Your task to perform on an android device: toggle sleep mode Image 0: 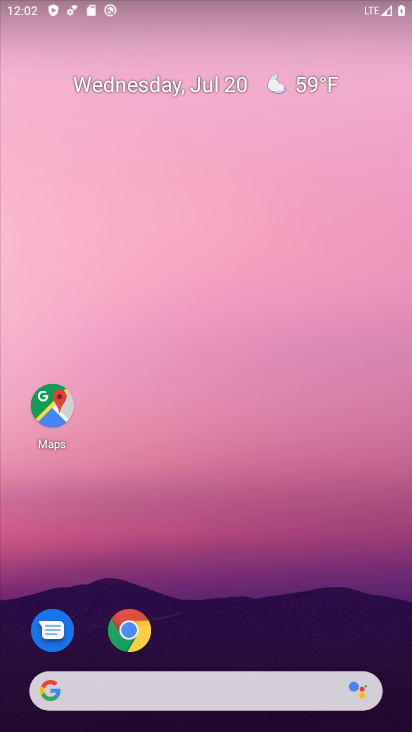
Step 0: drag from (254, 613) to (131, 267)
Your task to perform on an android device: toggle sleep mode Image 1: 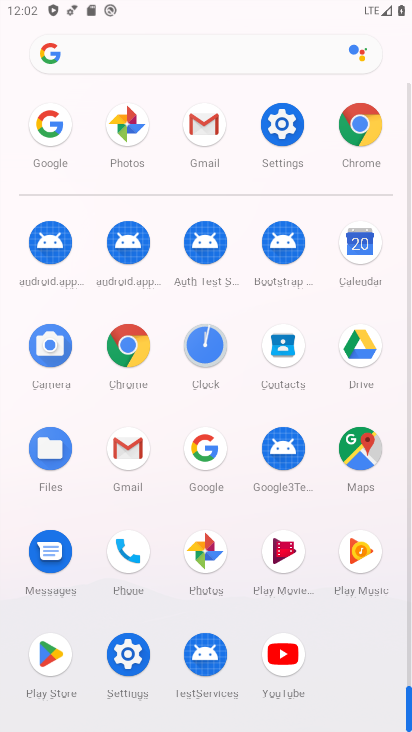
Step 1: click (284, 132)
Your task to perform on an android device: toggle sleep mode Image 2: 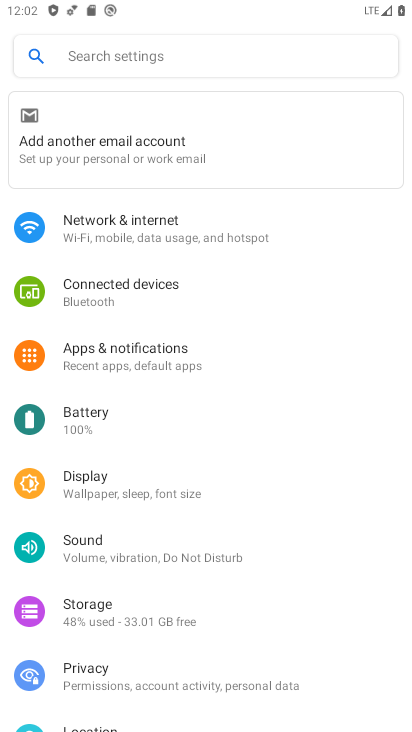
Step 2: click (110, 496)
Your task to perform on an android device: toggle sleep mode Image 3: 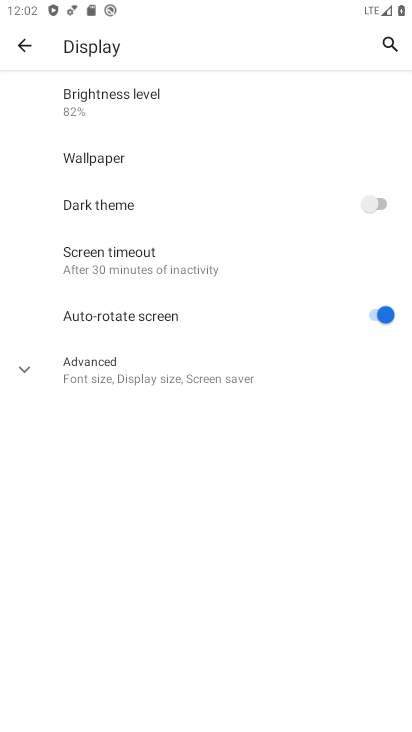
Step 3: click (93, 374)
Your task to perform on an android device: toggle sleep mode Image 4: 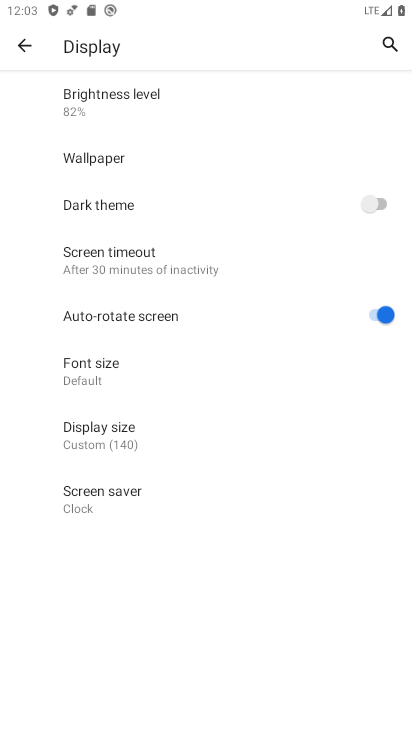
Step 4: task complete